Your task to perform on an android device: change alarm snooze length Image 0: 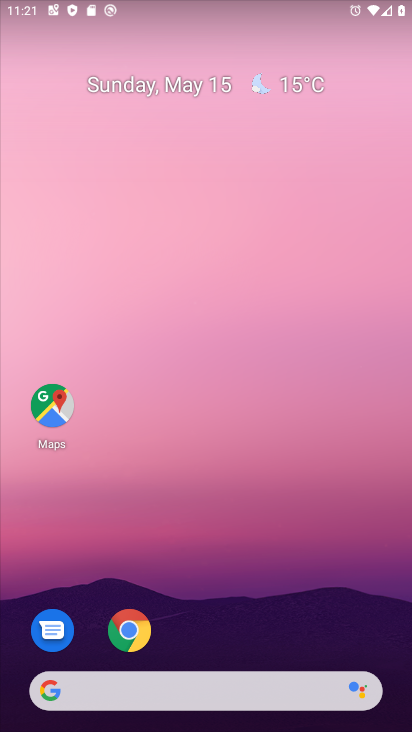
Step 0: drag from (204, 731) to (195, 73)
Your task to perform on an android device: change alarm snooze length Image 1: 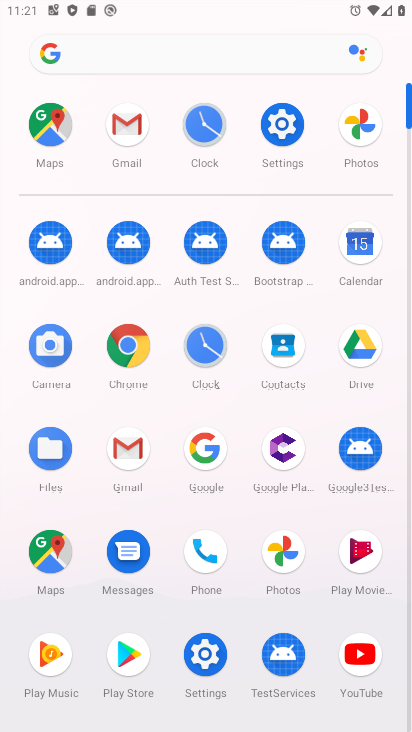
Step 1: click (210, 340)
Your task to perform on an android device: change alarm snooze length Image 2: 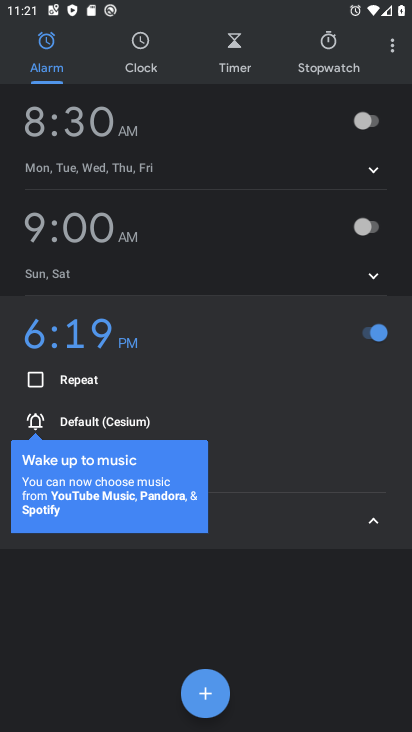
Step 2: click (395, 49)
Your task to perform on an android device: change alarm snooze length Image 3: 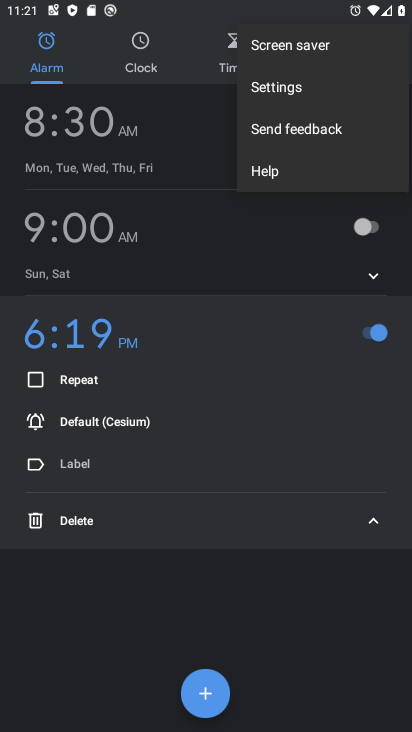
Step 3: click (296, 86)
Your task to perform on an android device: change alarm snooze length Image 4: 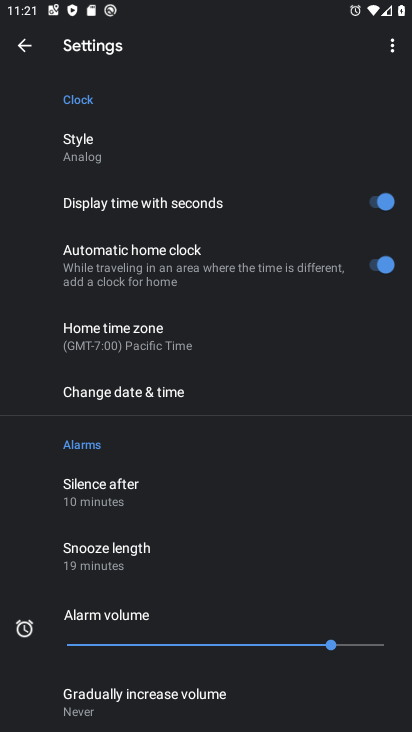
Step 4: click (116, 546)
Your task to perform on an android device: change alarm snooze length Image 5: 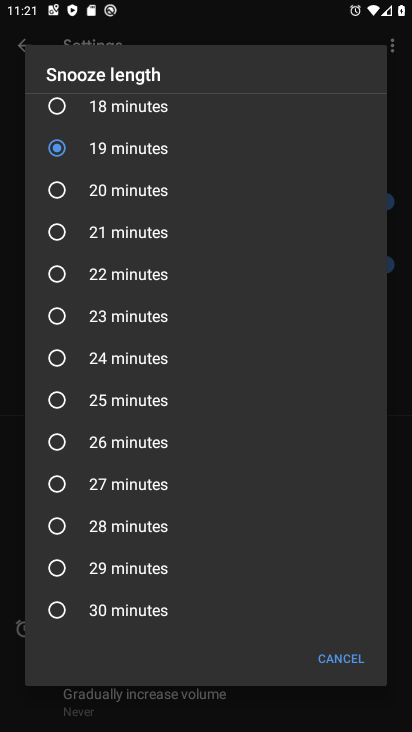
Step 5: click (59, 483)
Your task to perform on an android device: change alarm snooze length Image 6: 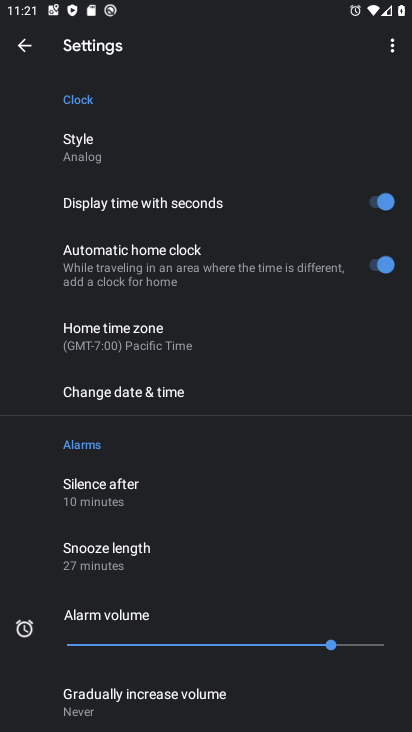
Step 6: task complete